Your task to perform on an android device: turn pop-ups off in chrome Image 0: 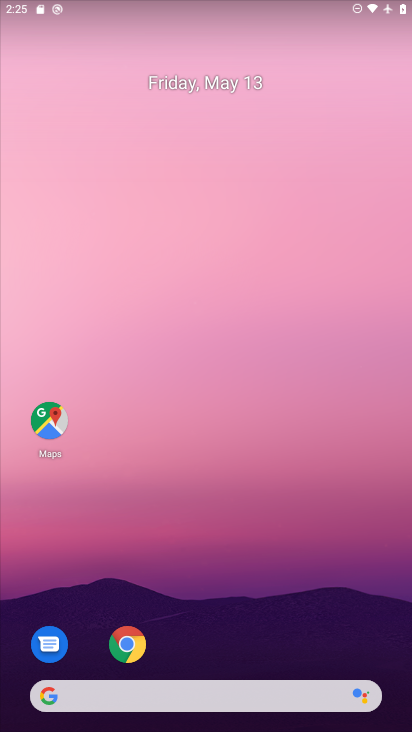
Step 0: drag from (369, 631) to (203, 85)
Your task to perform on an android device: turn pop-ups off in chrome Image 1: 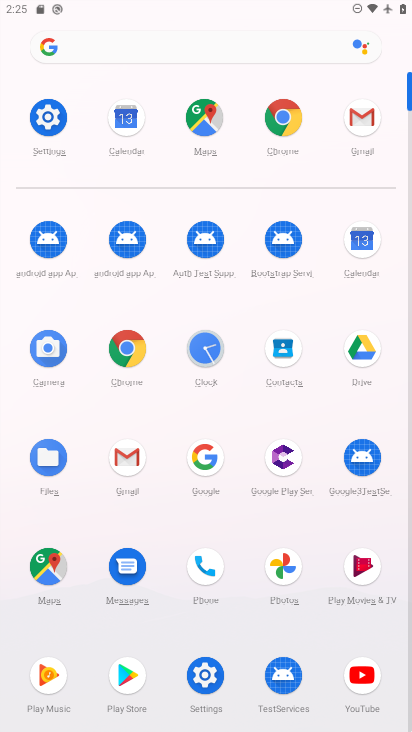
Step 1: click (128, 351)
Your task to perform on an android device: turn pop-ups off in chrome Image 2: 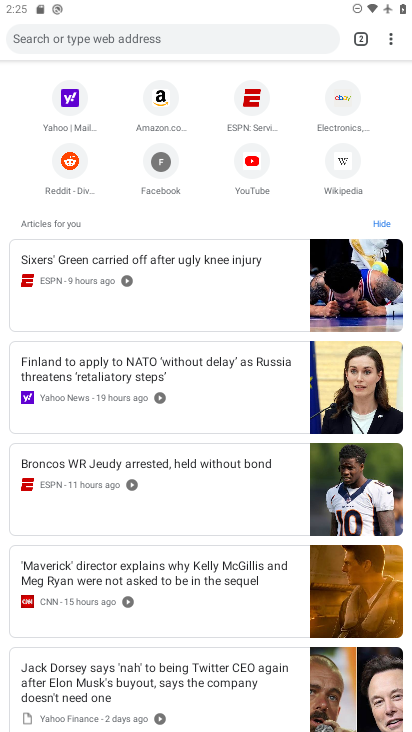
Step 2: click (388, 38)
Your task to perform on an android device: turn pop-ups off in chrome Image 3: 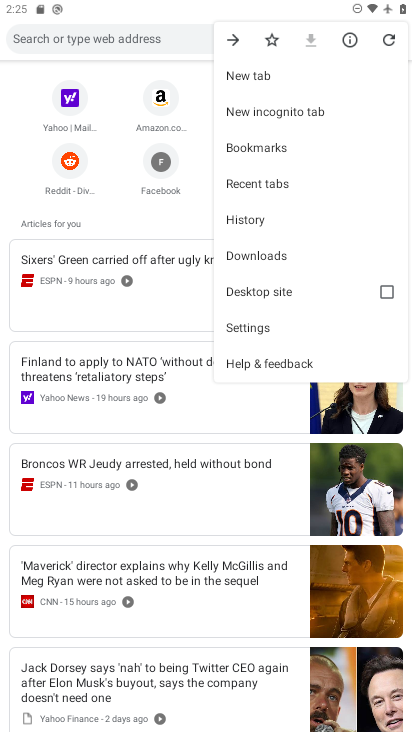
Step 3: click (275, 323)
Your task to perform on an android device: turn pop-ups off in chrome Image 4: 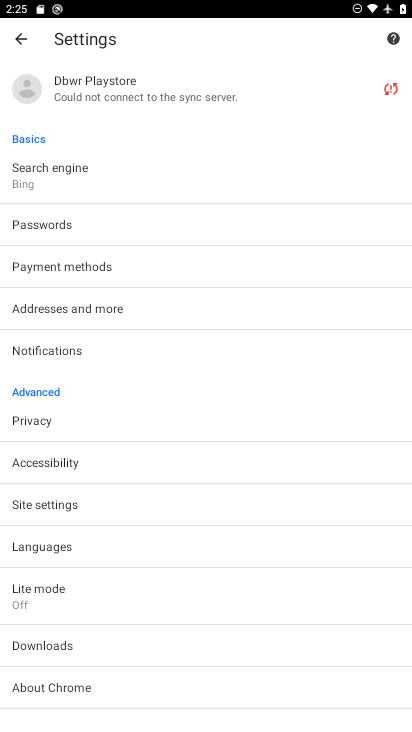
Step 4: click (178, 511)
Your task to perform on an android device: turn pop-ups off in chrome Image 5: 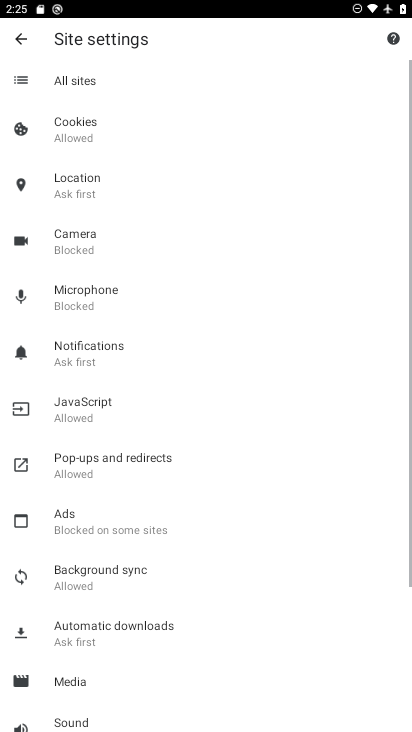
Step 5: click (103, 452)
Your task to perform on an android device: turn pop-ups off in chrome Image 6: 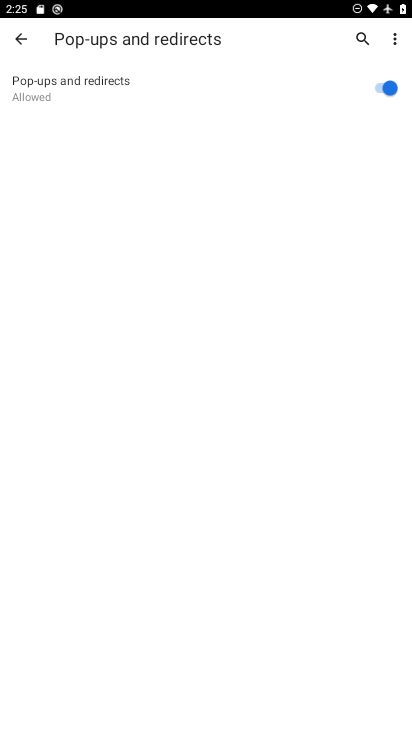
Step 6: click (352, 81)
Your task to perform on an android device: turn pop-ups off in chrome Image 7: 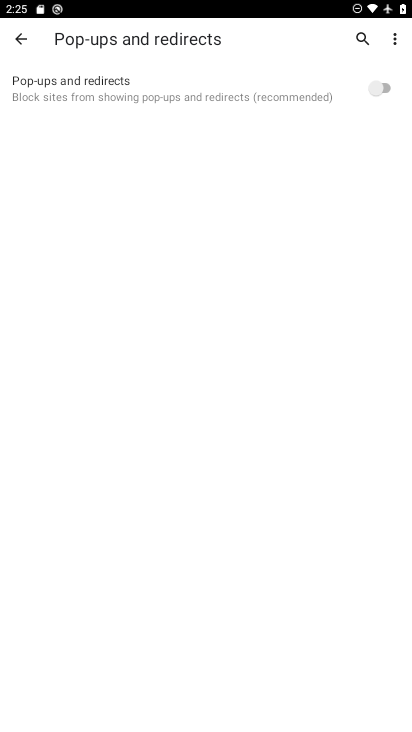
Step 7: task complete